Your task to perform on an android device: open device folders in google photos Image 0: 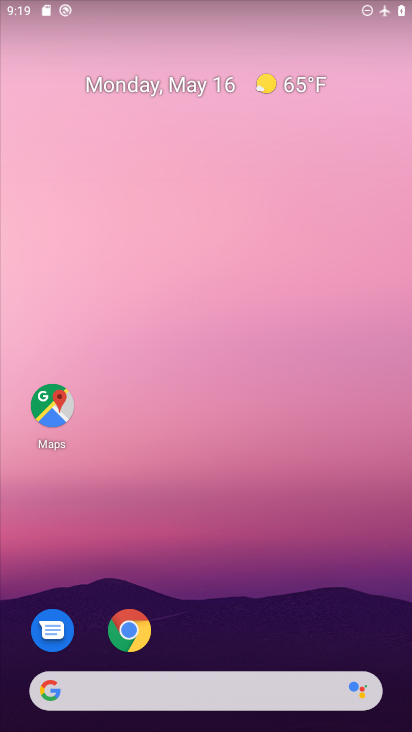
Step 0: drag from (209, 636) to (212, 228)
Your task to perform on an android device: open device folders in google photos Image 1: 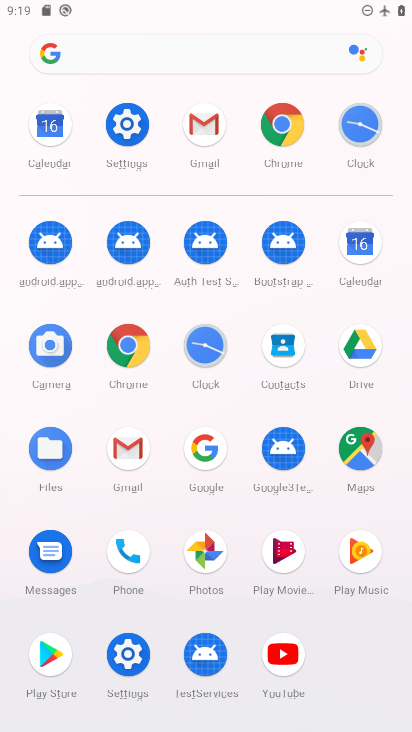
Step 1: click (205, 538)
Your task to perform on an android device: open device folders in google photos Image 2: 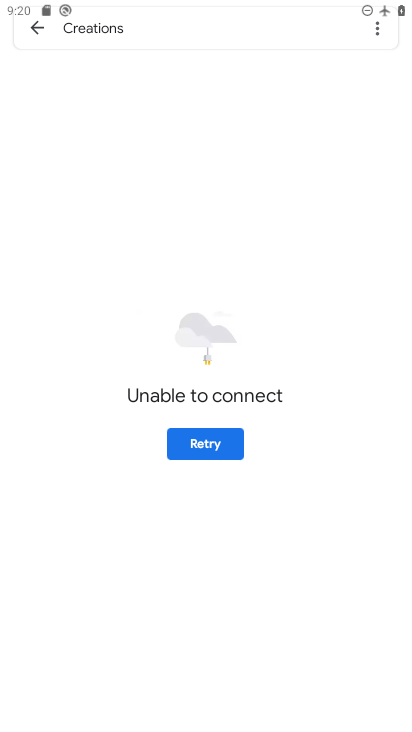
Step 2: task complete